Your task to perform on an android device: Is it going to rain this weekend? Image 0: 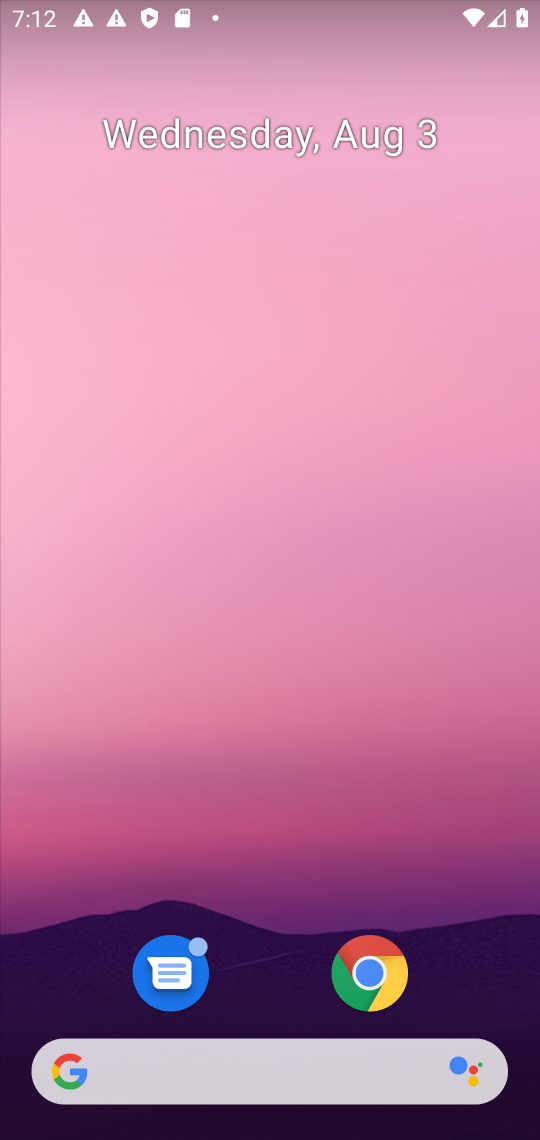
Step 0: drag from (235, 949) to (235, 168)
Your task to perform on an android device: Is it going to rain this weekend? Image 1: 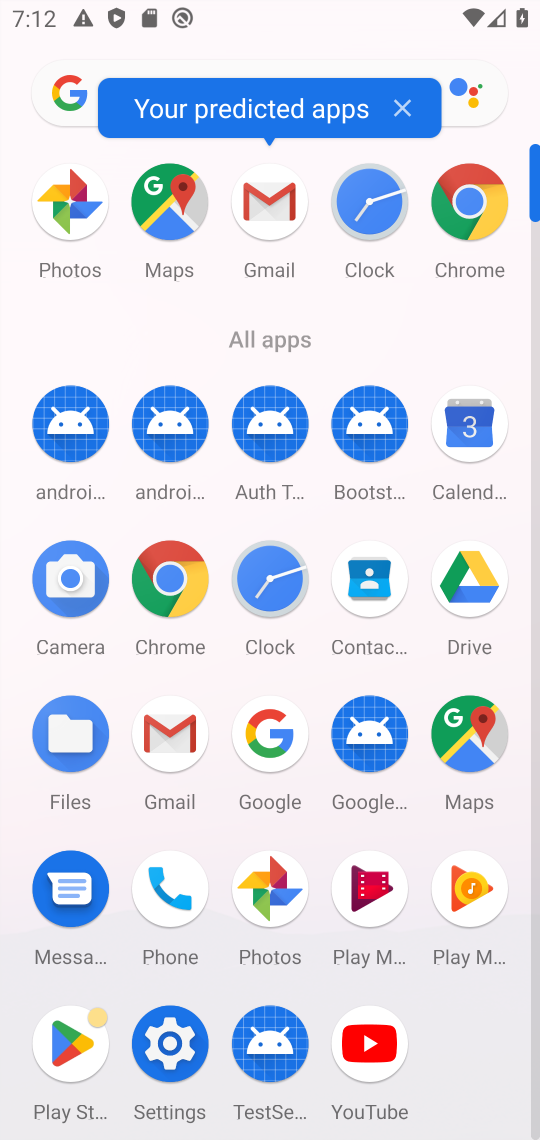
Step 1: click (281, 776)
Your task to perform on an android device: Is it going to rain this weekend? Image 2: 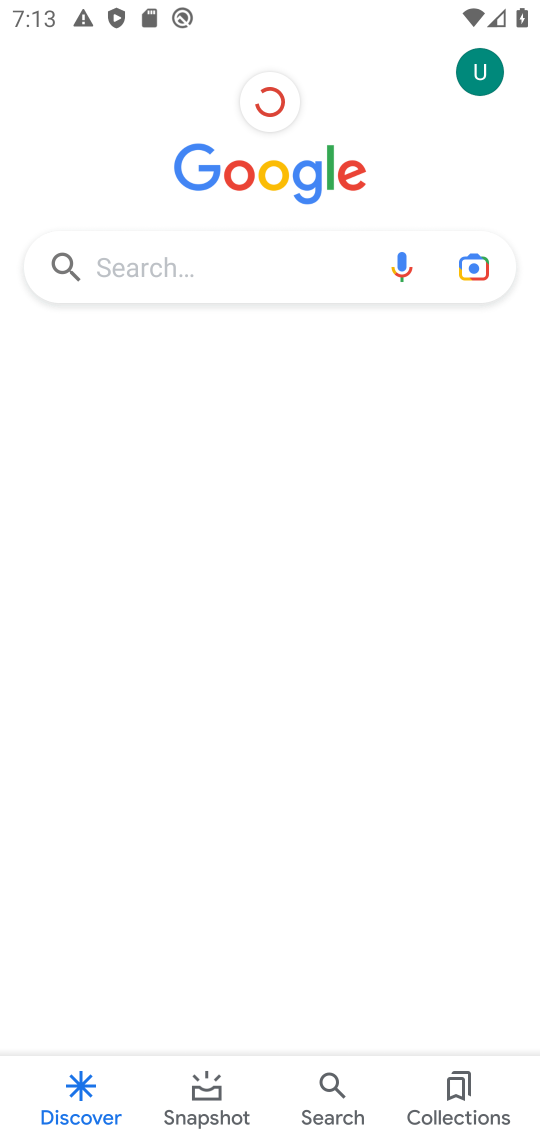
Step 2: click (190, 256)
Your task to perform on an android device: Is it going to rain this weekend? Image 3: 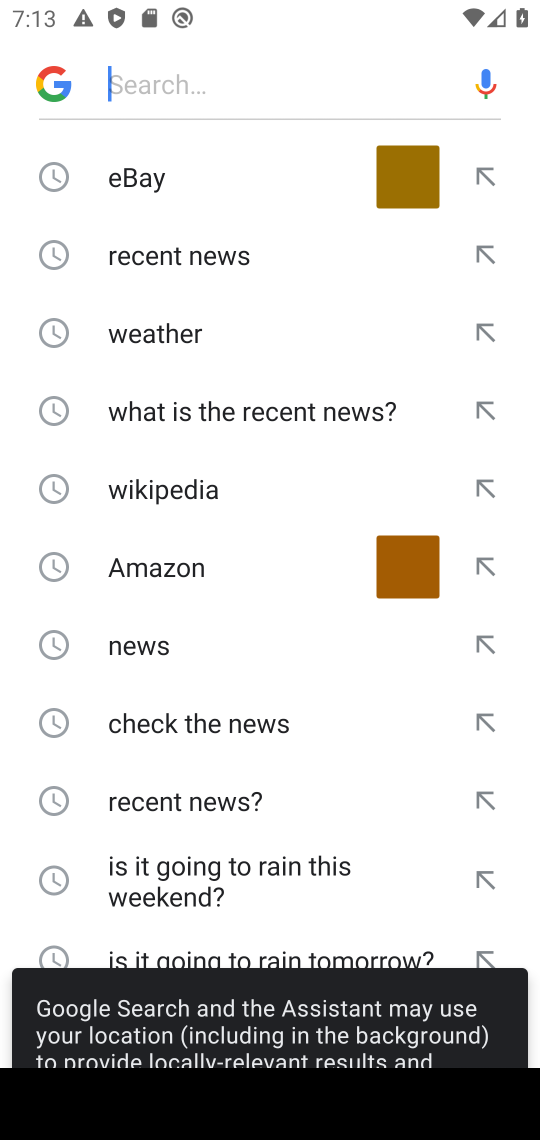
Step 3: click (137, 65)
Your task to perform on an android device: Is it going to rain this weekend? Image 4: 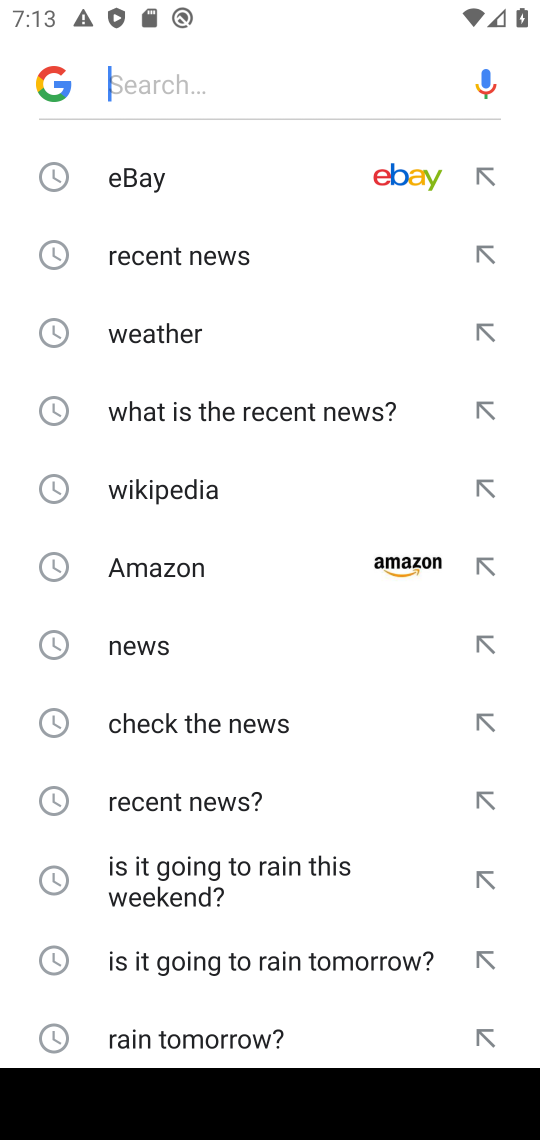
Step 4: click (158, 332)
Your task to perform on an android device: Is it going to rain this weekend? Image 5: 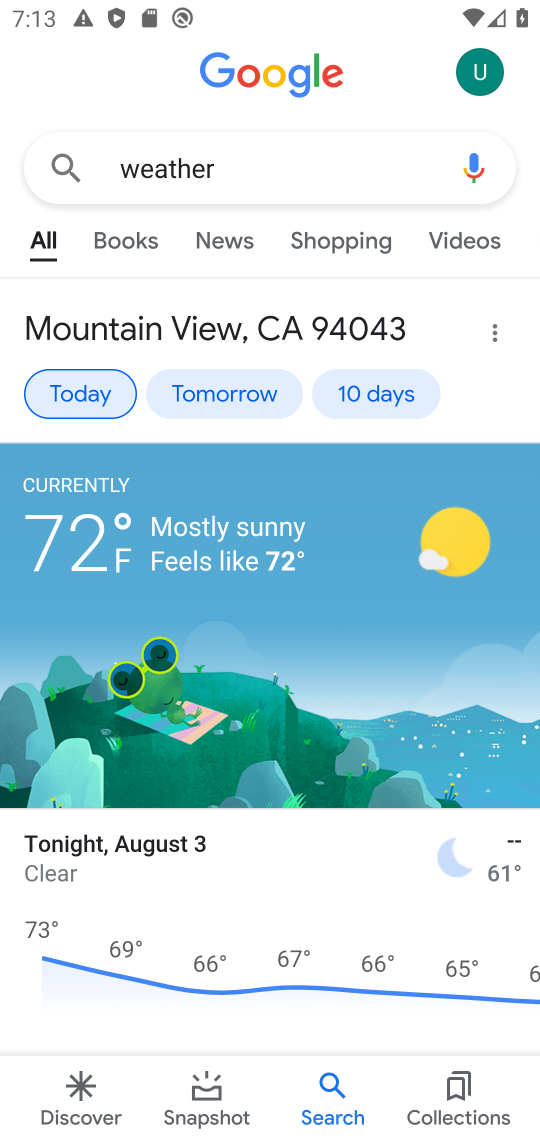
Step 5: click (358, 388)
Your task to perform on an android device: Is it going to rain this weekend? Image 6: 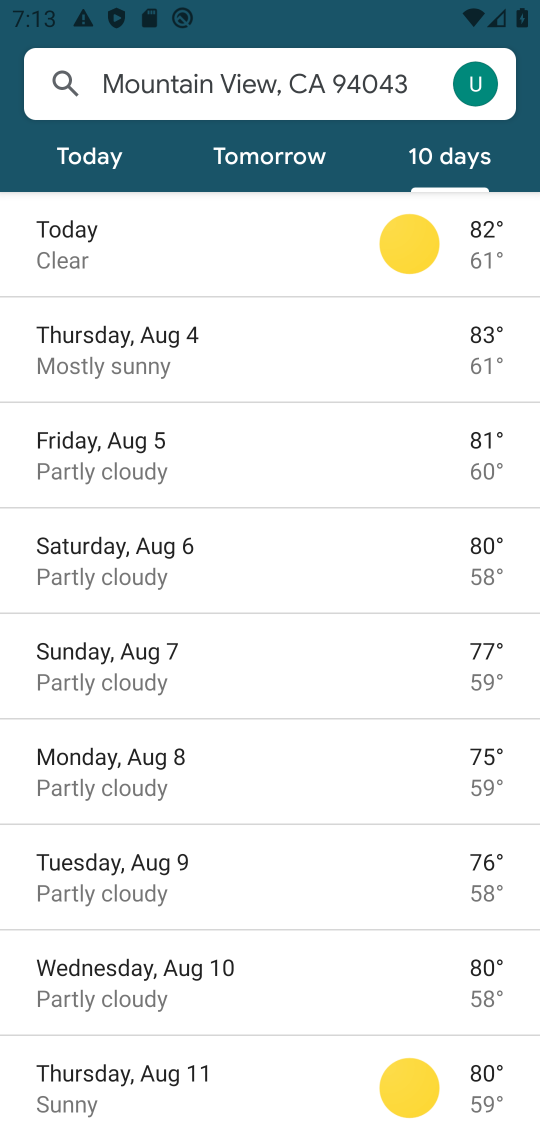
Step 6: task complete